Your task to perform on an android device: Go to Amazon Image 0: 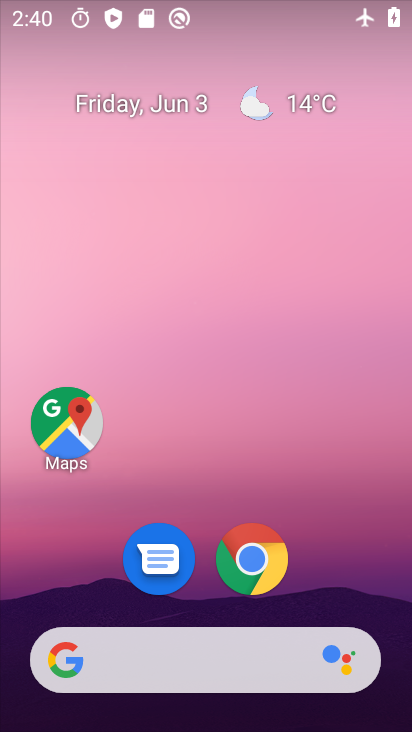
Step 0: drag from (190, 634) to (138, 9)
Your task to perform on an android device: Go to Amazon Image 1: 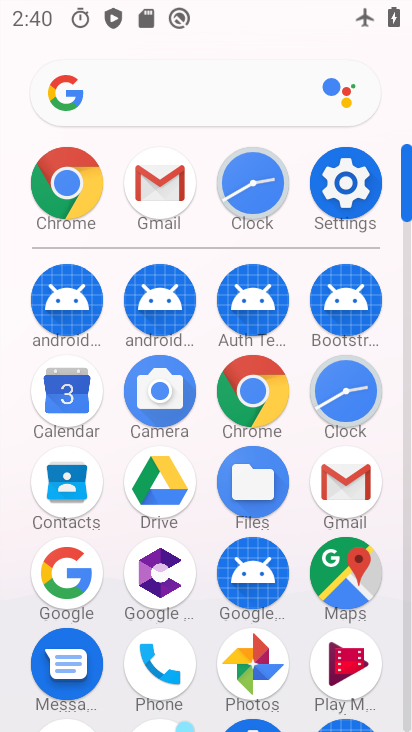
Step 1: click (237, 392)
Your task to perform on an android device: Go to Amazon Image 2: 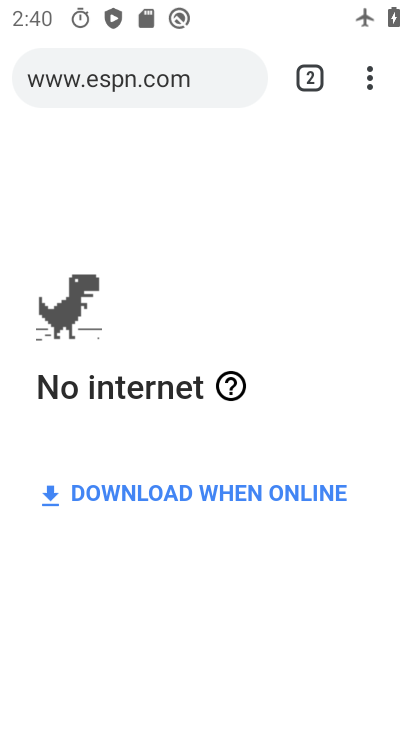
Step 2: click (293, 79)
Your task to perform on an android device: Go to Amazon Image 3: 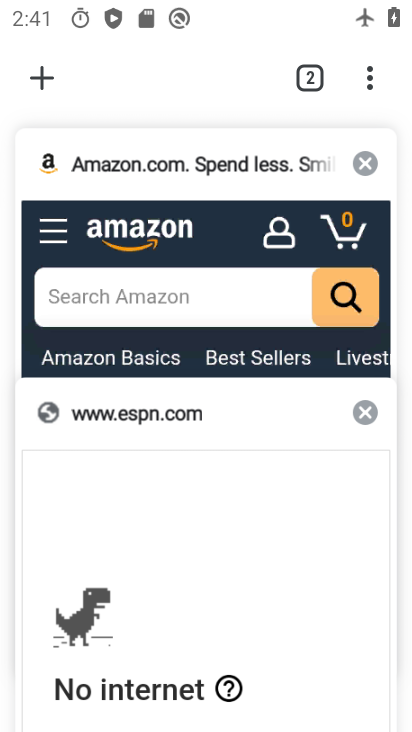
Step 3: click (43, 72)
Your task to perform on an android device: Go to Amazon Image 4: 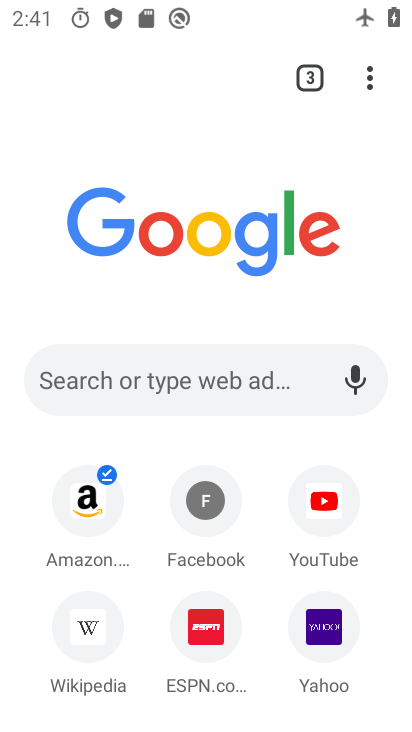
Step 4: click (99, 505)
Your task to perform on an android device: Go to Amazon Image 5: 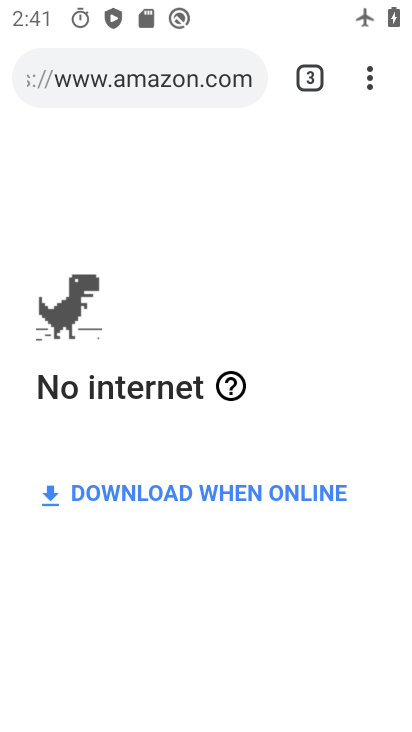
Step 5: task complete